Your task to perform on an android device: Open the Play Movies app and select the watchlist tab. Image 0: 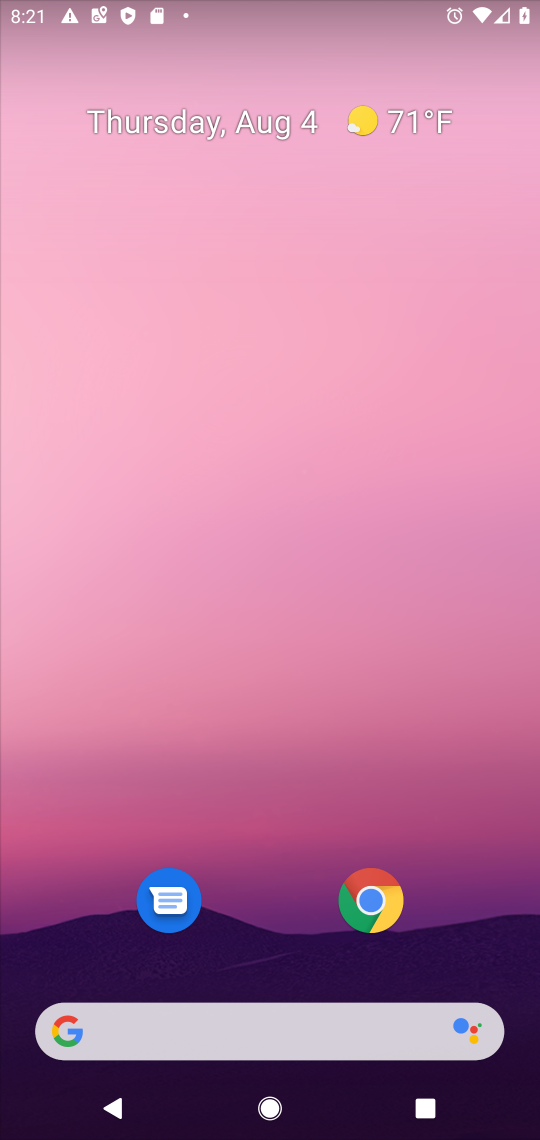
Step 0: drag from (240, 1048) to (398, 0)
Your task to perform on an android device: Open the Play Movies app and select the watchlist tab. Image 1: 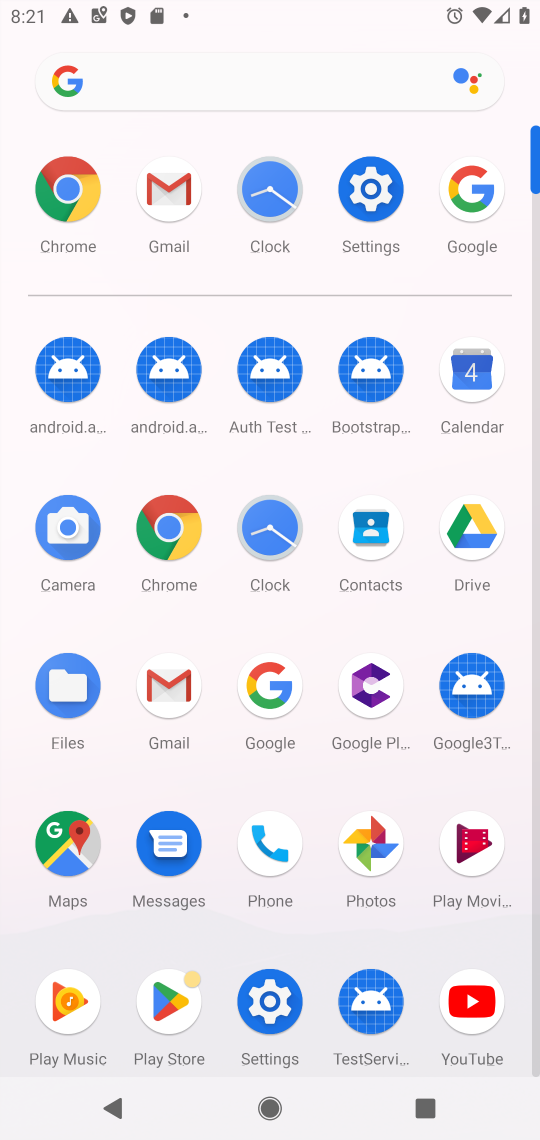
Step 1: click (467, 841)
Your task to perform on an android device: Open the Play Movies app and select the watchlist tab. Image 2: 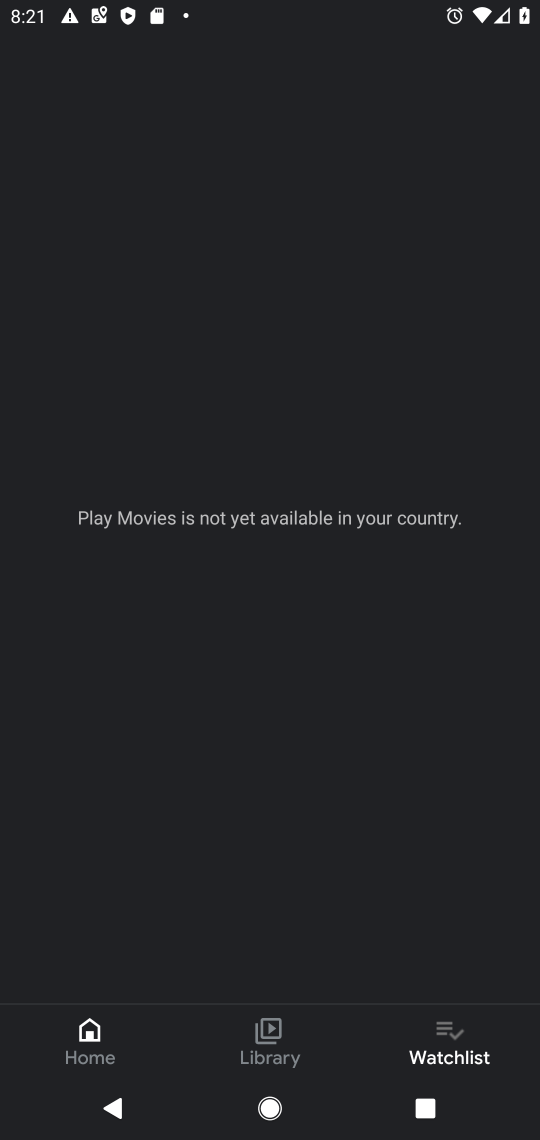
Step 2: click (450, 1029)
Your task to perform on an android device: Open the Play Movies app and select the watchlist tab. Image 3: 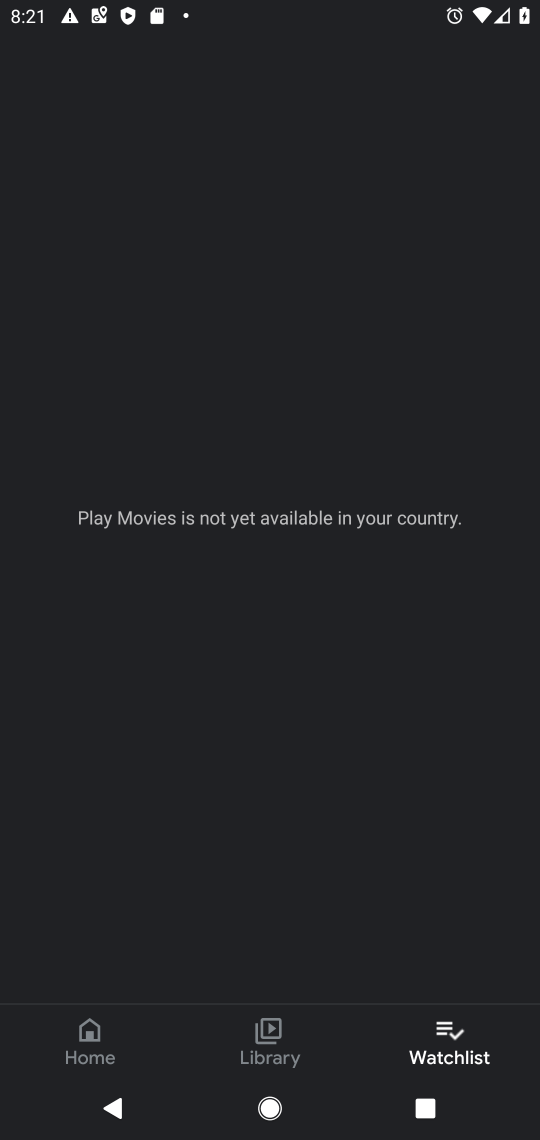
Step 3: task complete